Your task to perform on an android device: change timer sound Image 0: 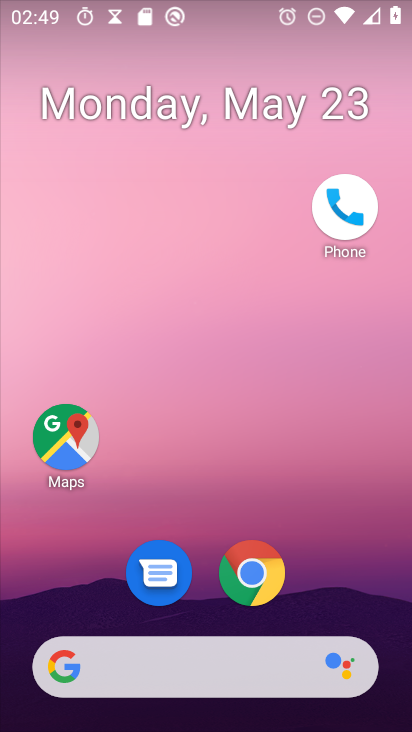
Step 0: press home button
Your task to perform on an android device: change timer sound Image 1: 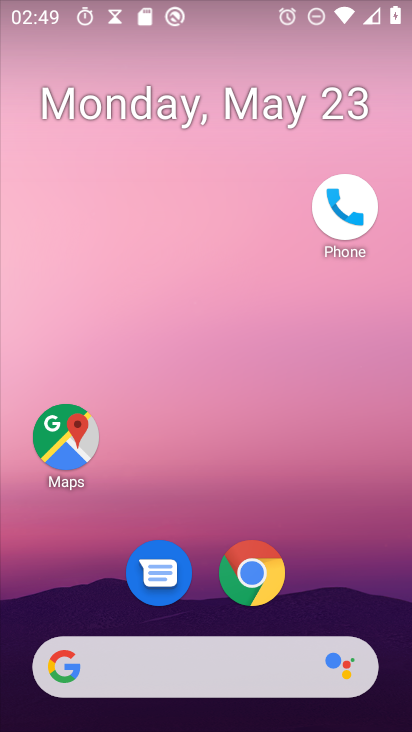
Step 1: drag from (169, 664) to (339, 196)
Your task to perform on an android device: change timer sound Image 2: 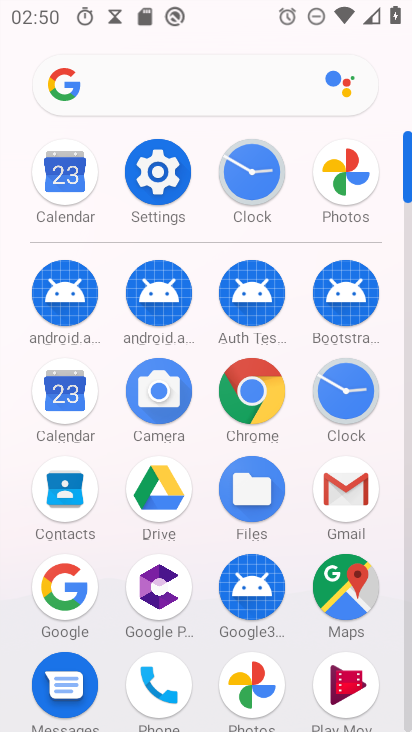
Step 2: drag from (252, 195) to (261, 229)
Your task to perform on an android device: change timer sound Image 3: 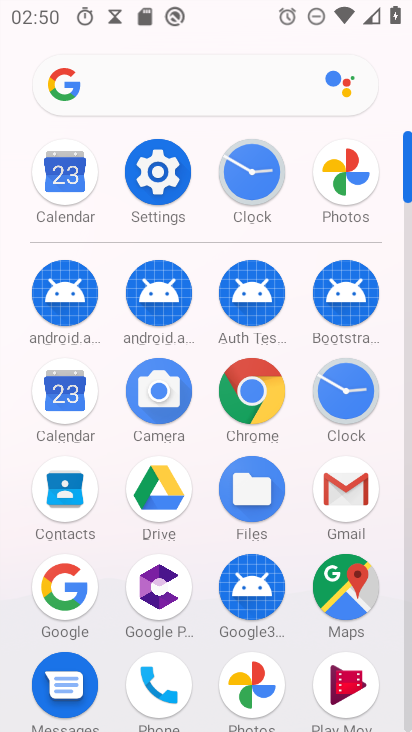
Step 3: click (259, 194)
Your task to perform on an android device: change timer sound Image 4: 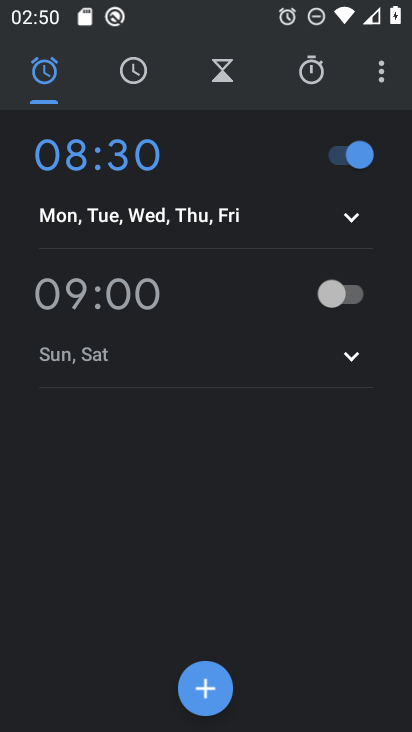
Step 4: click (380, 75)
Your task to perform on an android device: change timer sound Image 5: 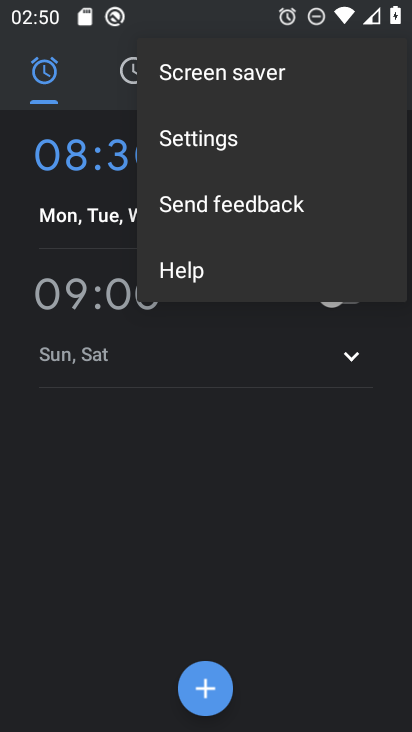
Step 5: click (223, 143)
Your task to perform on an android device: change timer sound Image 6: 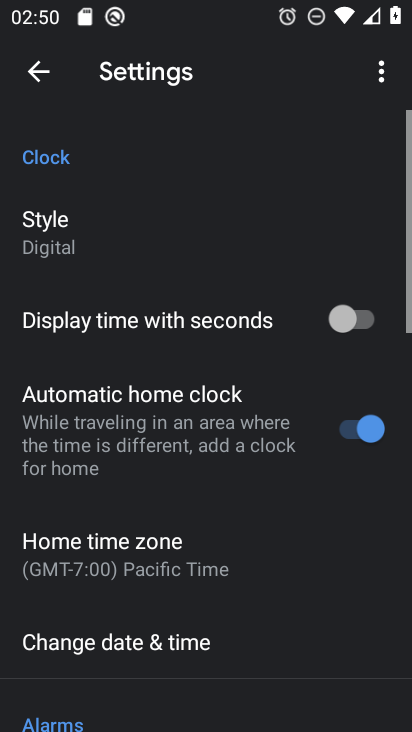
Step 6: drag from (228, 648) to (409, 33)
Your task to perform on an android device: change timer sound Image 7: 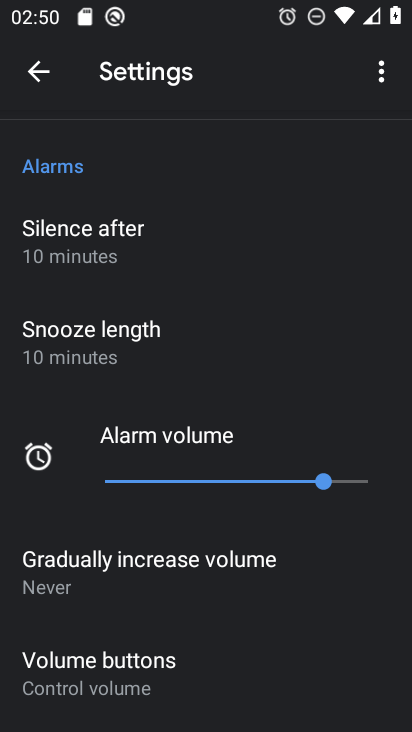
Step 7: drag from (290, 438) to (379, 33)
Your task to perform on an android device: change timer sound Image 8: 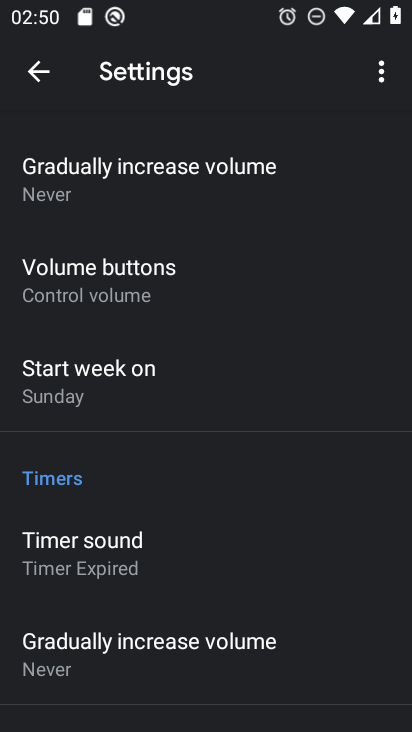
Step 8: click (113, 566)
Your task to perform on an android device: change timer sound Image 9: 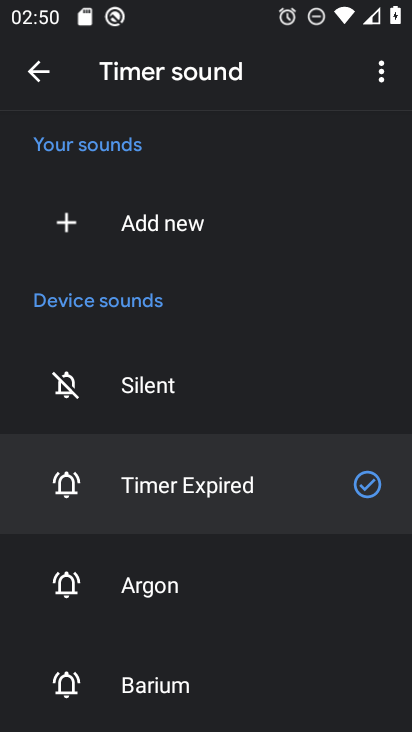
Step 9: click (99, 528)
Your task to perform on an android device: change timer sound Image 10: 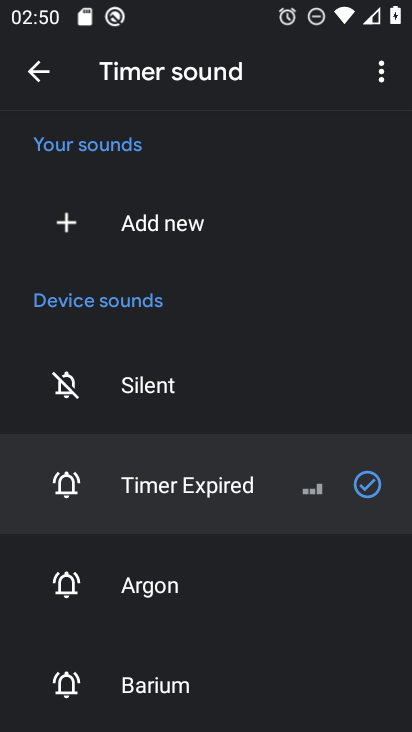
Step 10: task complete